Your task to perform on an android device: Go to Google maps Image 0: 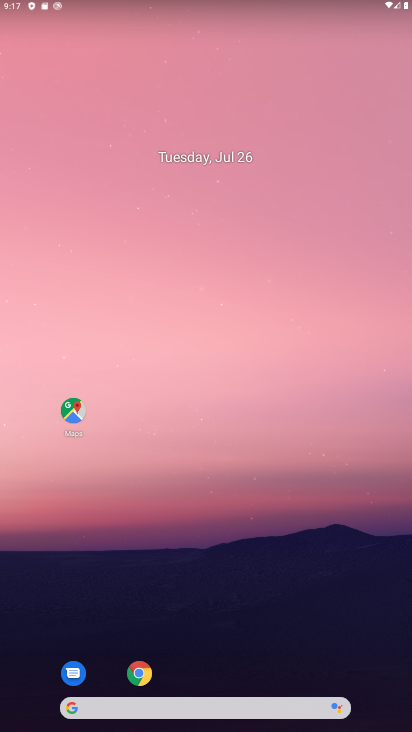
Step 0: click (57, 416)
Your task to perform on an android device: Go to Google maps Image 1: 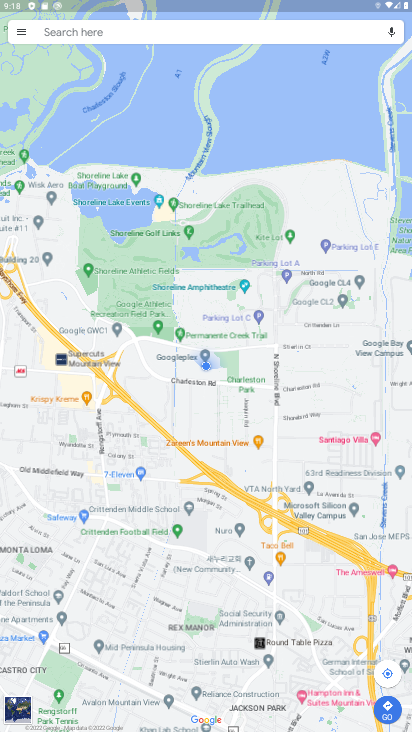
Step 1: task complete